Your task to perform on an android device: set the stopwatch Image 0: 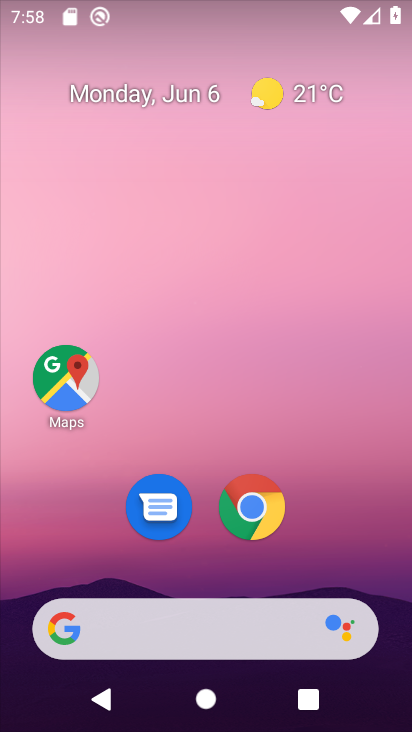
Step 0: drag from (354, 575) to (384, 170)
Your task to perform on an android device: set the stopwatch Image 1: 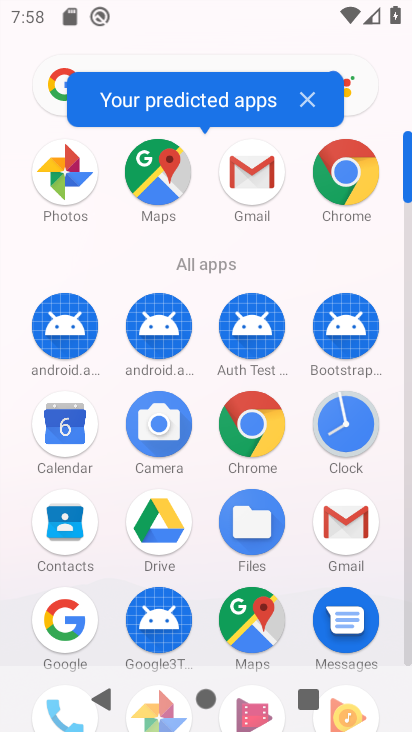
Step 1: click (347, 442)
Your task to perform on an android device: set the stopwatch Image 2: 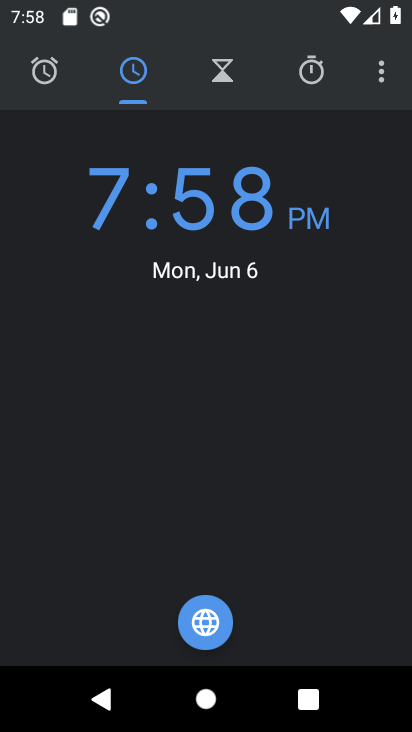
Step 2: click (310, 72)
Your task to perform on an android device: set the stopwatch Image 3: 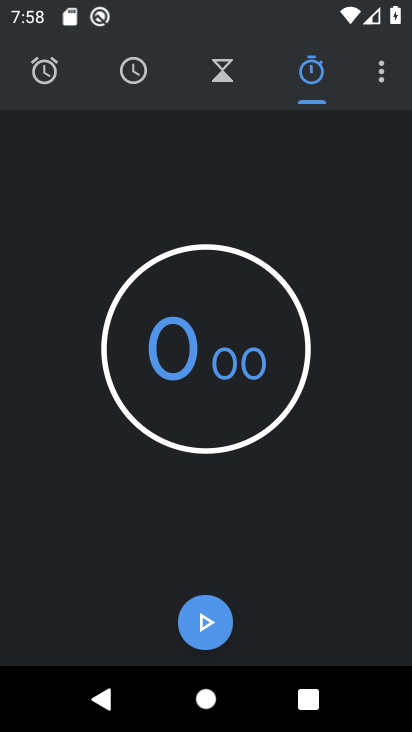
Step 3: click (178, 621)
Your task to perform on an android device: set the stopwatch Image 4: 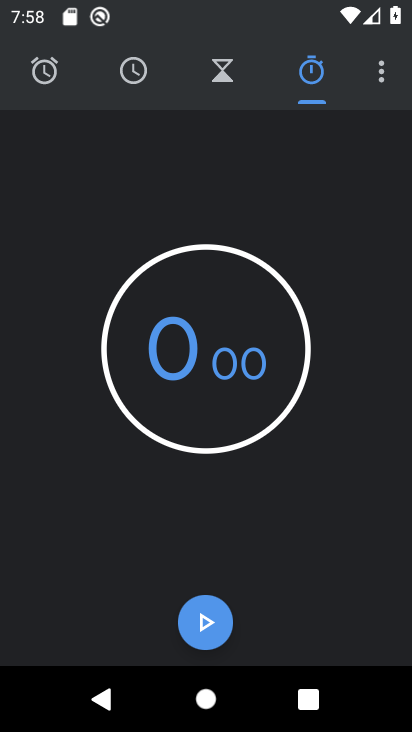
Step 4: click (214, 624)
Your task to perform on an android device: set the stopwatch Image 5: 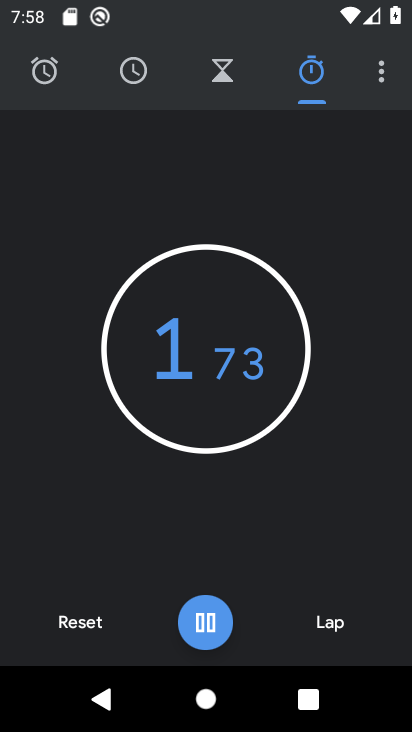
Step 5: task complete